Your task to perform on an android device: Add "macbook pro 13 inch" to the cart on costco, then select checkout. Image 0: 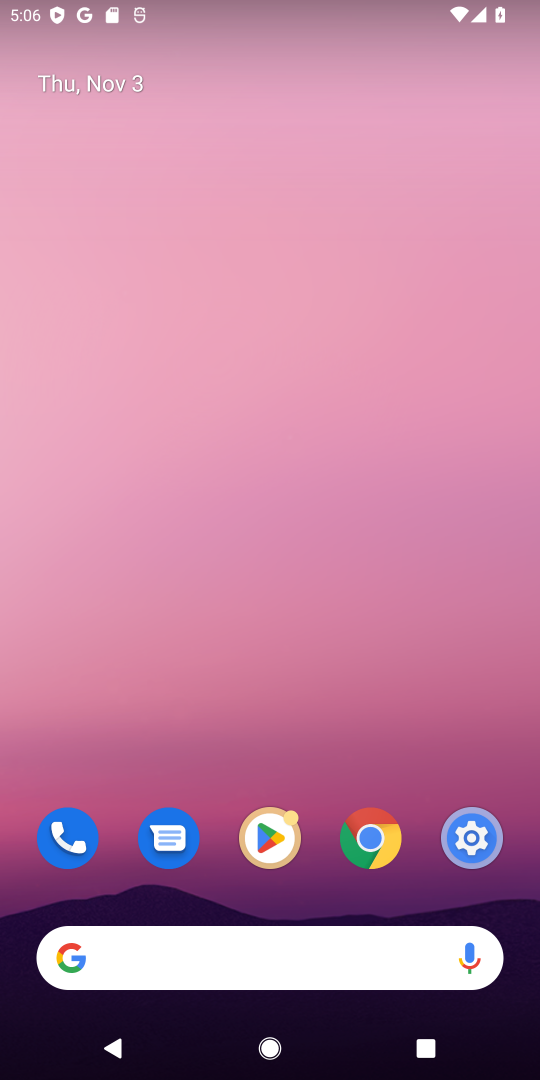
Step 0: drag from (243, 479) to (311, 113)
Your task to perform on an android device: Add "macbook pro 13 inch" to the cart on costco, then select checkout. Image 1: 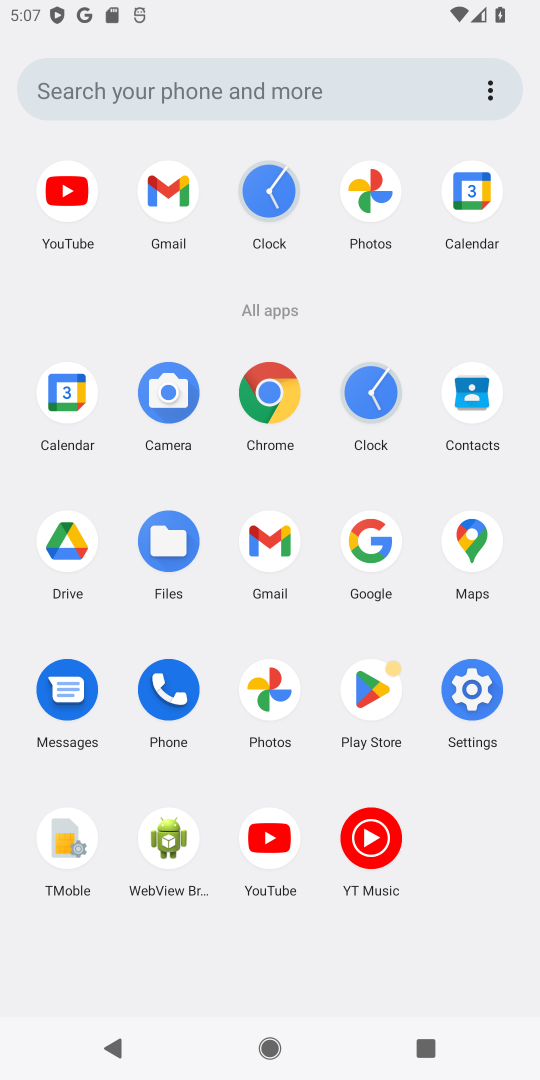
Step 1: click (383, 538)
Your task to perform on an android device: Add "macbook pro 13 inch" to the cart on costco, then select checkout. Image 2: 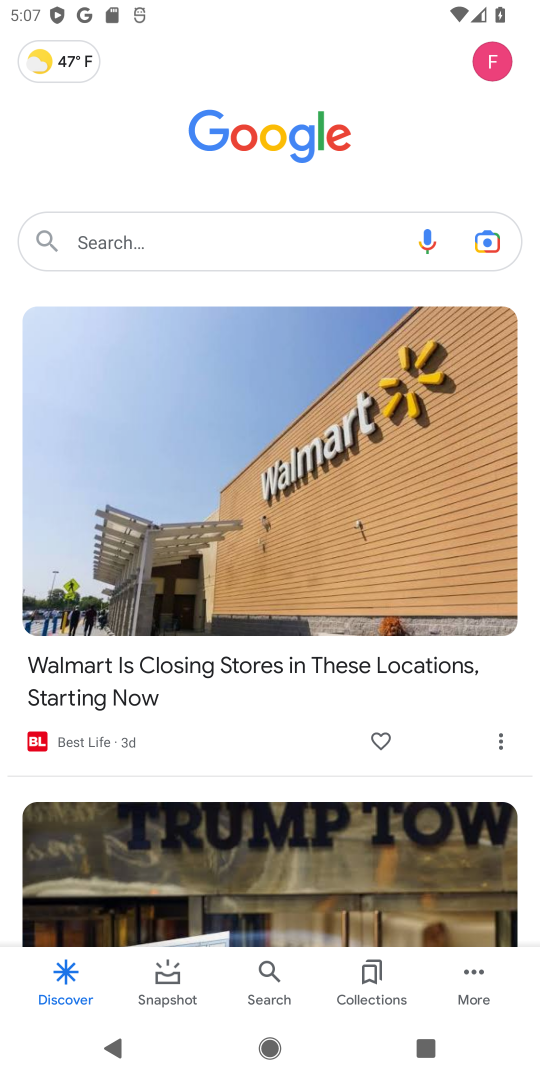
Step 2: click (170, 248)
Your task to perform on an android device: Add "macbook pro 13 inch" to the cart on costco, then select checkout. Image 3: 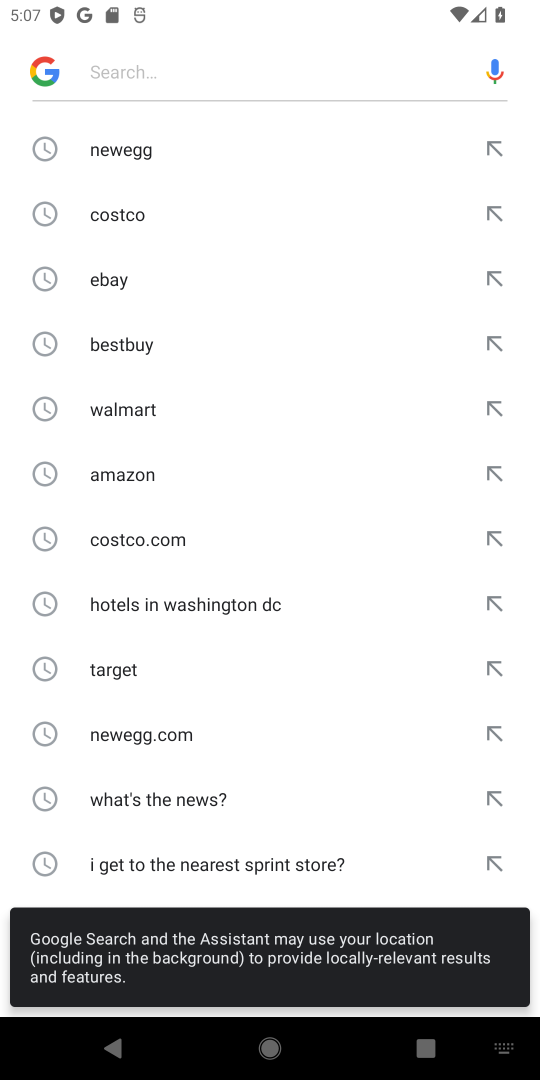
Step 3: type "macbook pro 13 inch"
Your task to perform on an android device: Add "macbook pro 13 inch" to the cart on costco, then select checkout. Image 4: 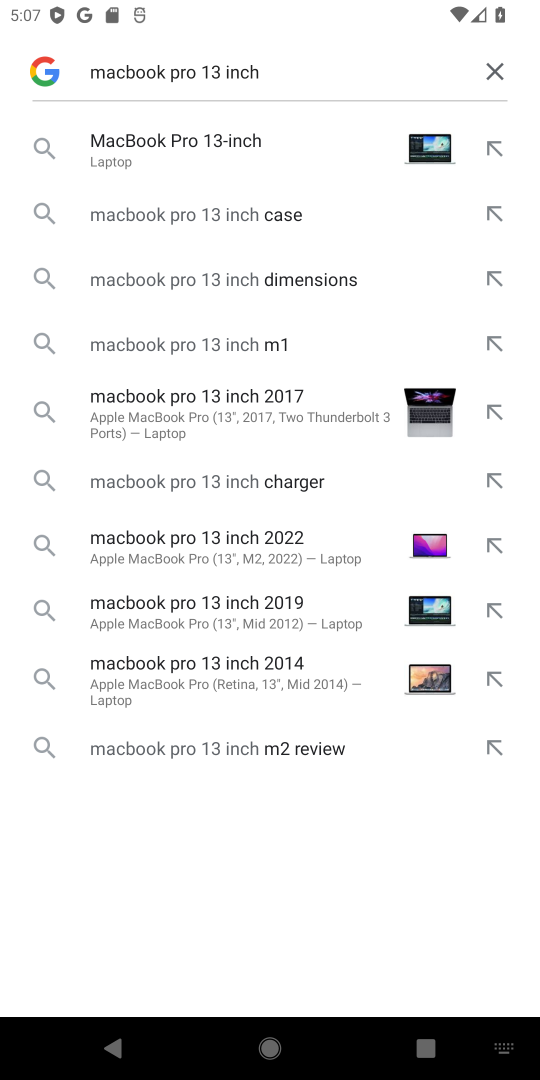
Step 4: click (132, 161)
Your task to perform on an android device: Add "macbook pro 13 inch" to the cart on costco, then select checkout. Image 5: 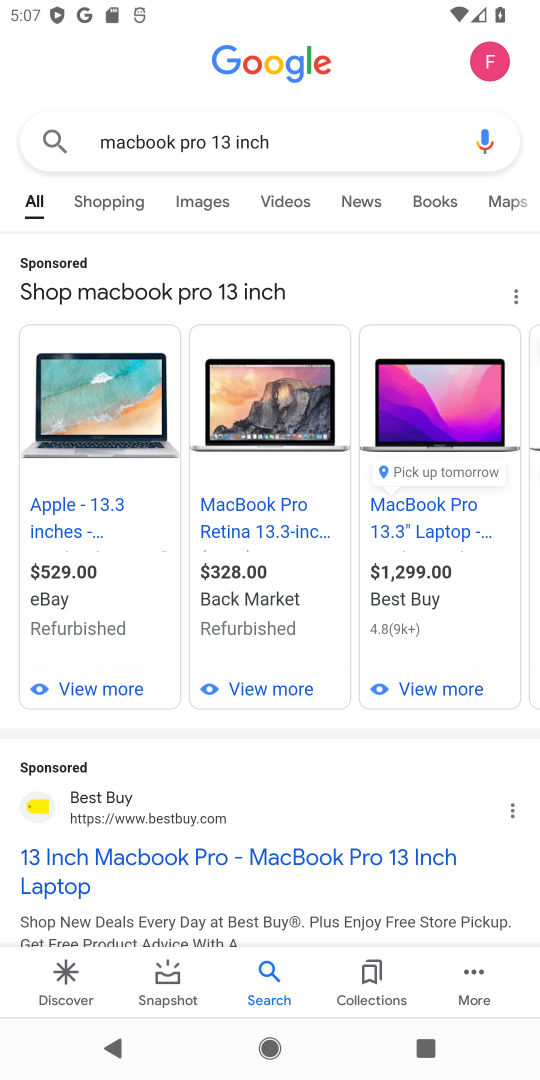
Step 5: click (44, 504)
Your task to perform on an android device: Add "macbook pro 13 inch" to the cart on costco, then select checkout. Image 6: 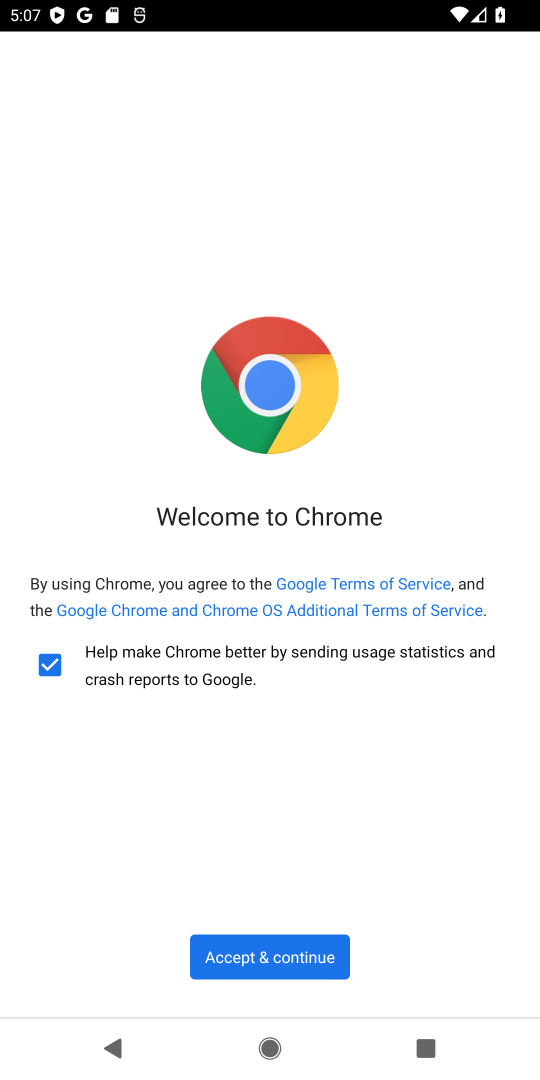
Step 6: click (297, 951)
Your task to perform on an android device: Add "macbook pro 13 inch" to the cart on costco, then select checkout. Image 7: 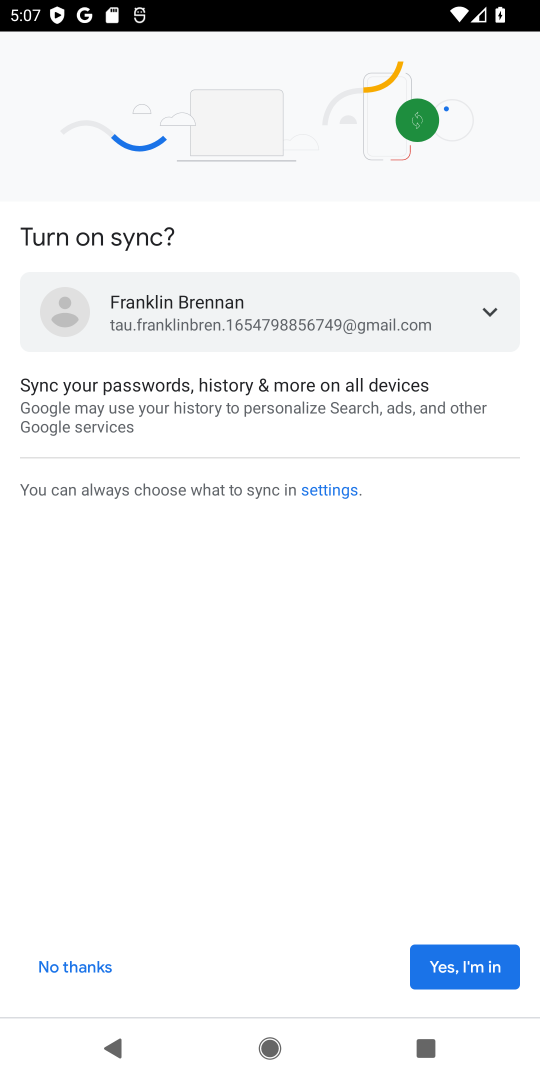
Step 7: click (467, 965)
Your task to perform on an android device: Add "macbook pro 13 inch" to the cart on costco, then select checkout. Image 8: 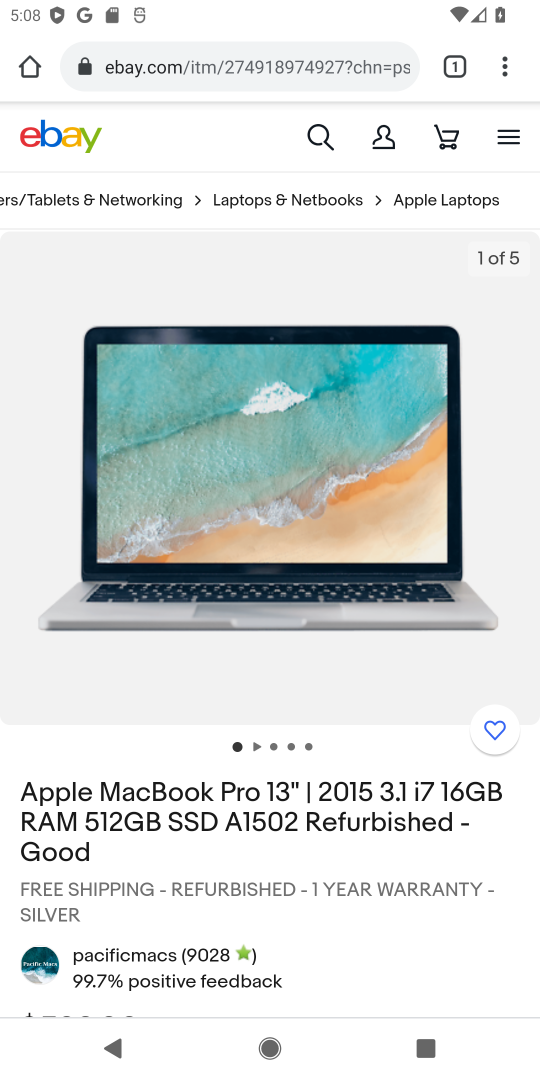
Step 8: drag from (363, 769) to (327, 590)
Your task to perform on an android device: Add "macbook pro 13 inch" to the cart on costco, then select checkout. Image 9: 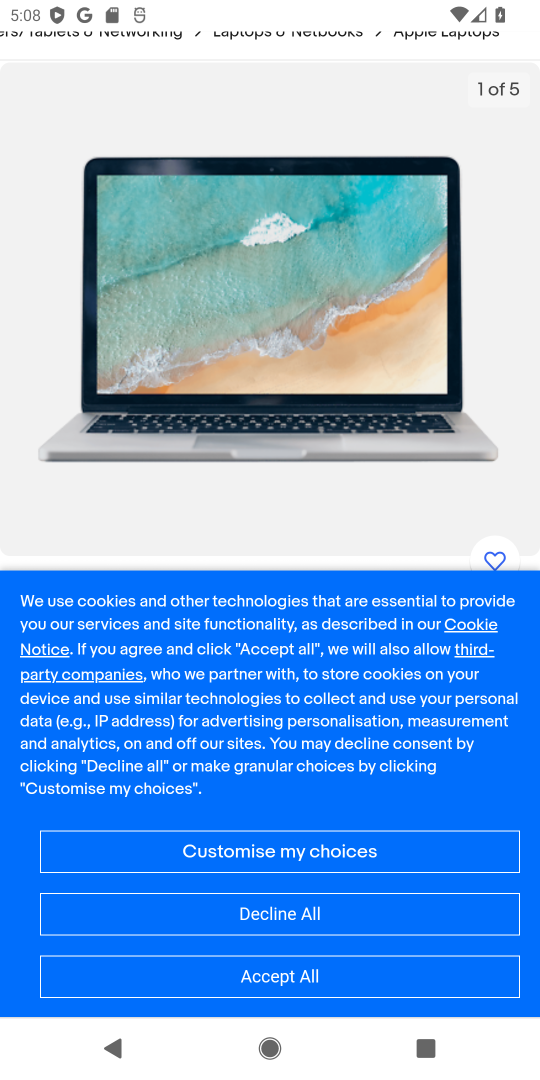
Step 9: click (288, 909)
Your task to perform on an android device: Add "macbook pro 13 inch" to the cart on costco, then select checkout. Image 10: 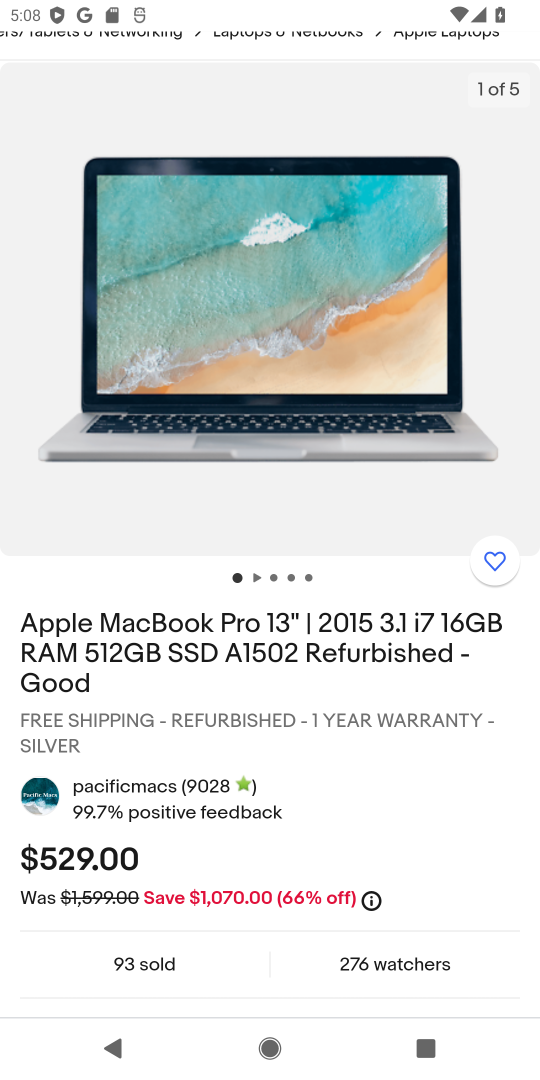
Step 10: drag from (308, 866) to (290, 740)
Your task to perform on an android device: Add "macbook pro 13 inch" to the cart on costco, then select checkout. Image 11: 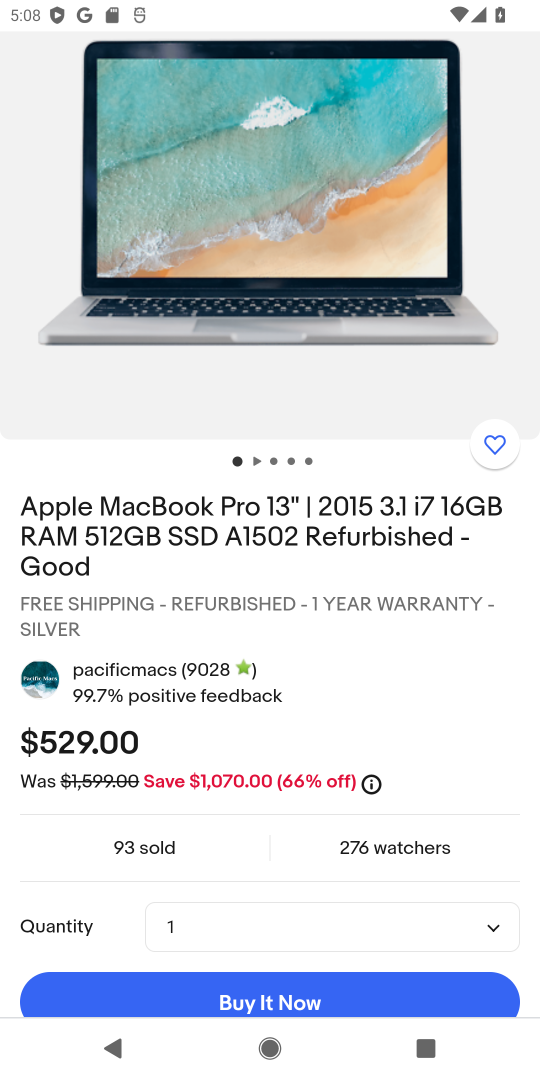
Step 11: drag from (341, 880) to (324, 815)
Your task to perform on an android device: Add "macbook pro 13 inch" to the cart on costco, then select checkout. Image 12: 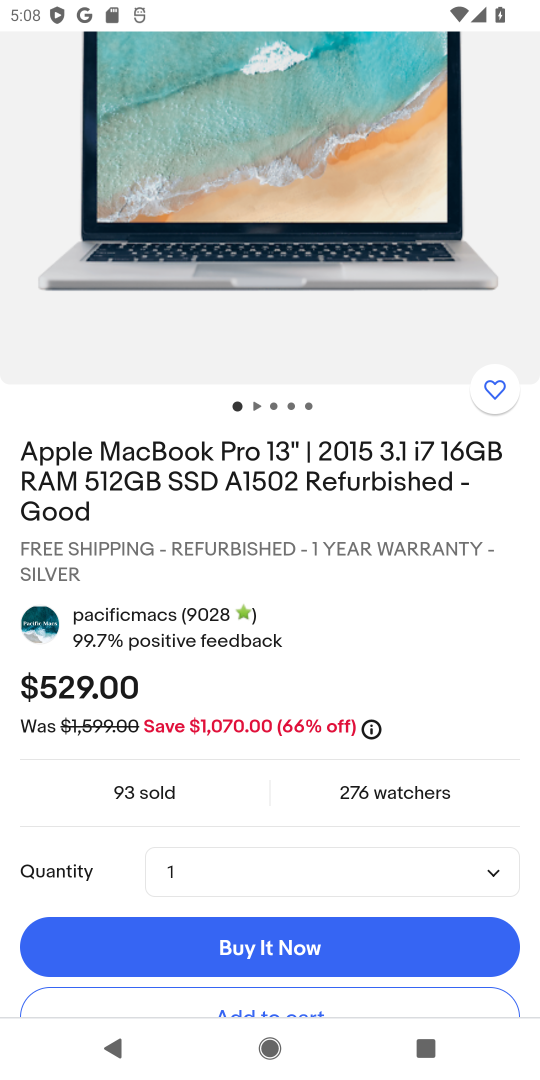
Step 12: drag from (270, 722) to (238, 529)
Your task to perform on an android device: Add "macbook pro 13 inch" to the cart on costco, then select checkout. Image 13: 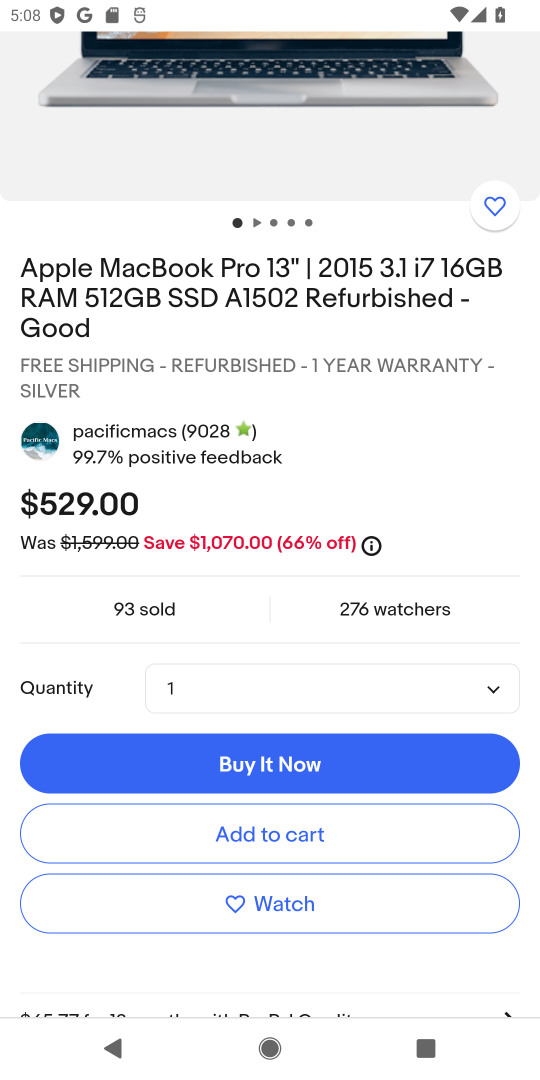
Step 13: click (256, 822)
Your task to perform on an android device: Add "macbook pro 13 inch" to the cart on costco, then select checkout. Image 14: 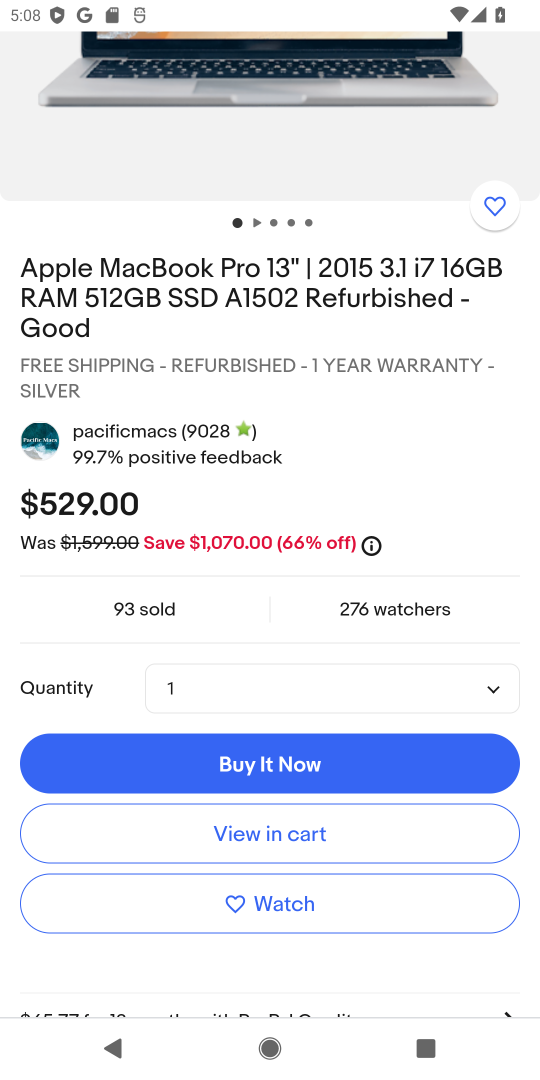
Step 14: click (262, 829)
Your task to perform on an android device: Add "macbook pro 13 inch" to the cart on costco, then select checkout. Image 15: 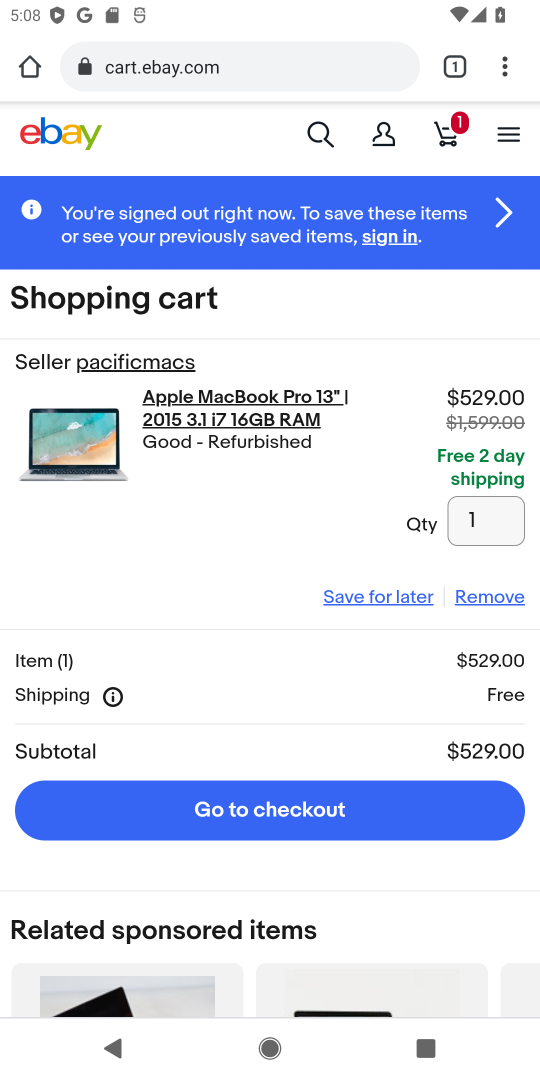
Step 15: click (283, 825)
Your task to perform on an android device: Add "macbook pro 13 inch" to the cart on costco, then select checkout. Image 16: 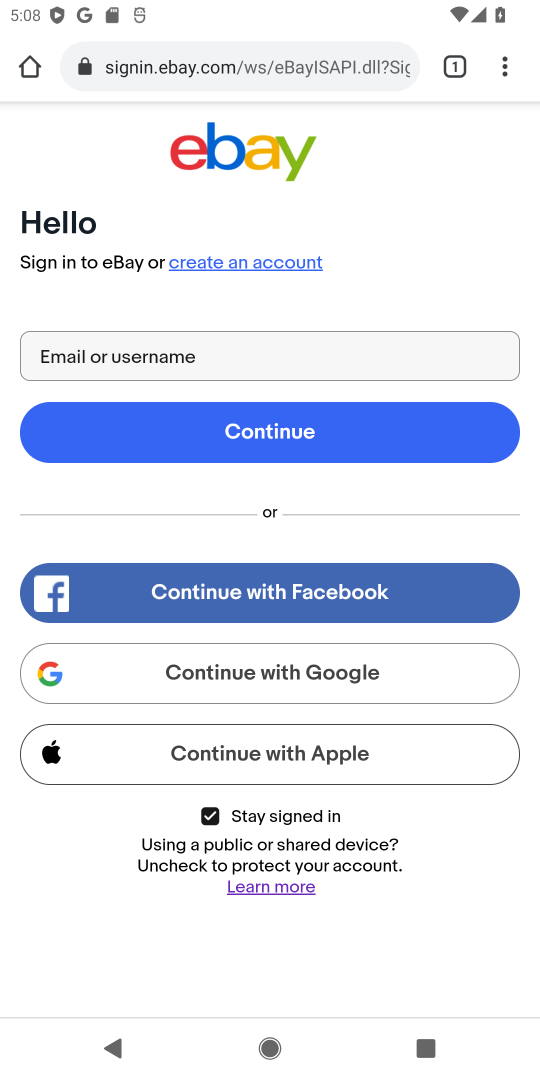
Step 16: task complete